Your task to perform on an android device: find photos in the google photos app Image 0: 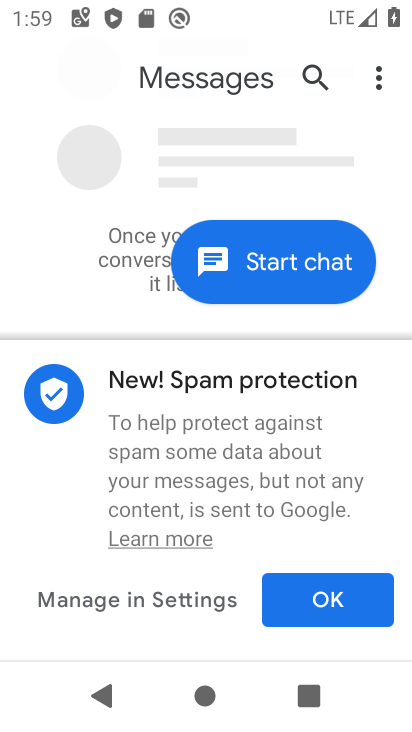
Step 0: press home button
Your task to perform on an android device: find photos in the google photos app Image 1: 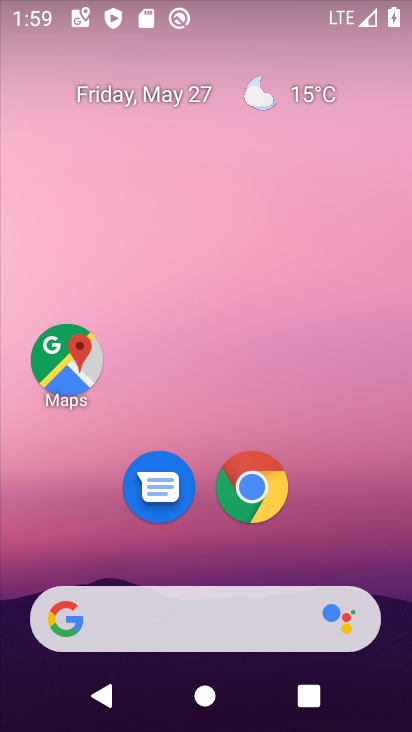
Step 1: drag from (347, 534) to (328, 171)
Your task to perform on an android device: find photos in the google photos app Image 2: 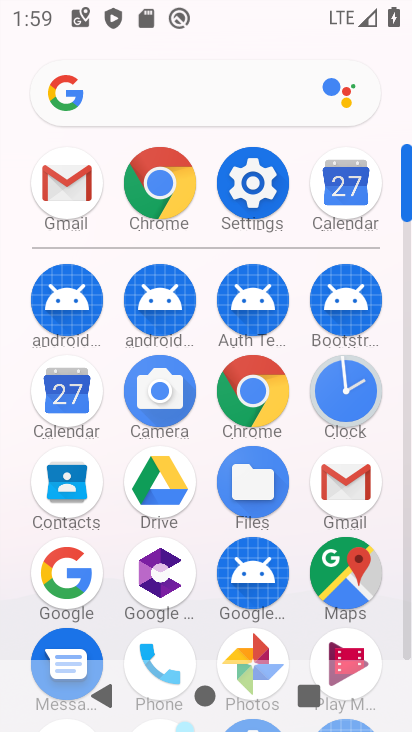
Step 2: click (255, 385)
Your task to perform on an android device: find photos in the google photos app Image 3: 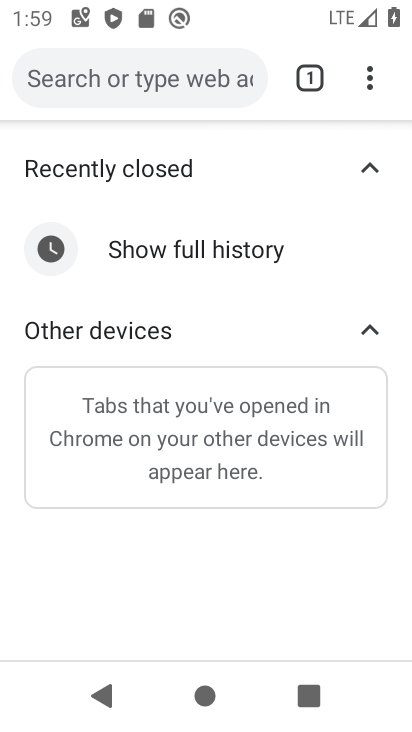
Step 3: drag from (381, 77) to (397, 177)
Your task to perform on an android device: find photos in the google photos app Image 4: 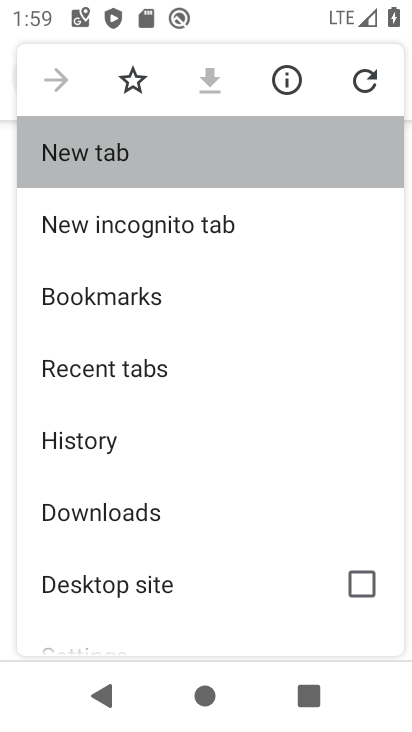
Step 4: press home button
Your task to perform on an android device: find photos in the google photos app Image 5: 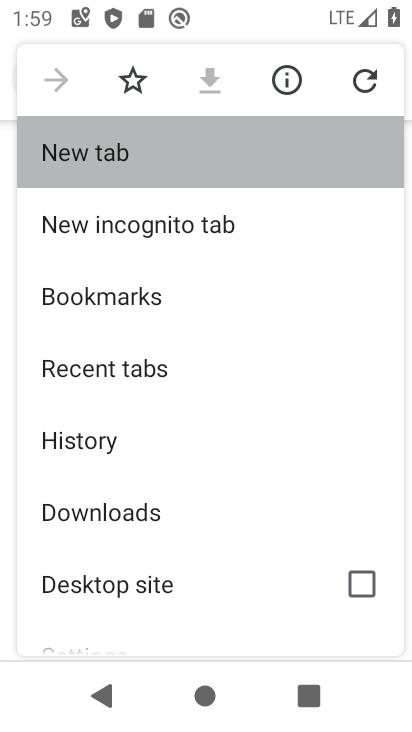
Step 5: drag from (397, 177) to (404, 335)
Your task to perform on an android device: find photos in the google photos app Image 6: 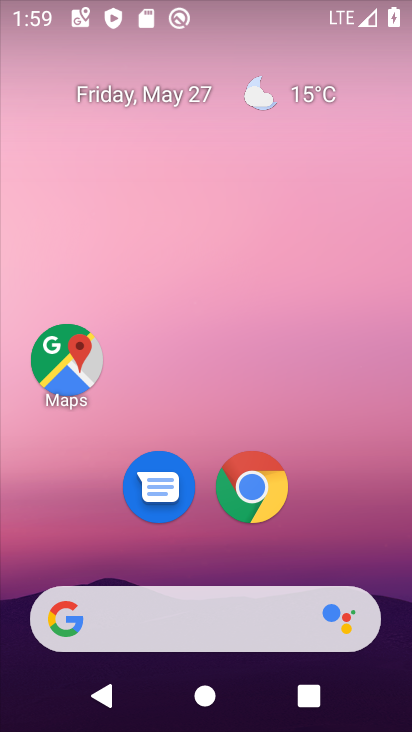
Step 6: drag from (314, 494) to (351, 129)
Your task to perform on an android device: find photos in the google photos app Image 7: 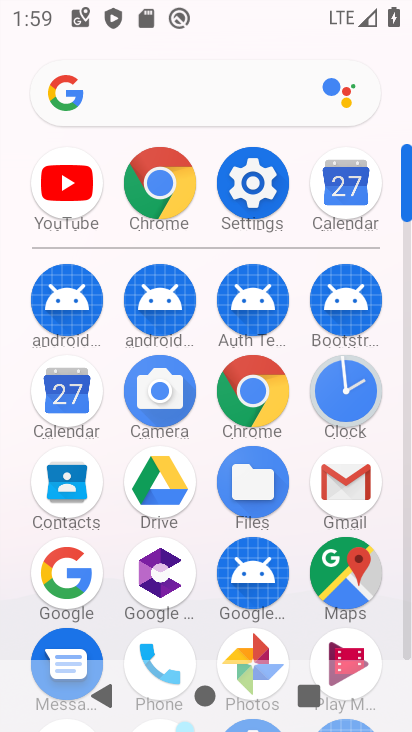
Step 7: click (240, 646)
Your task to perform on an android device: find photos in the google photos app Image 8: 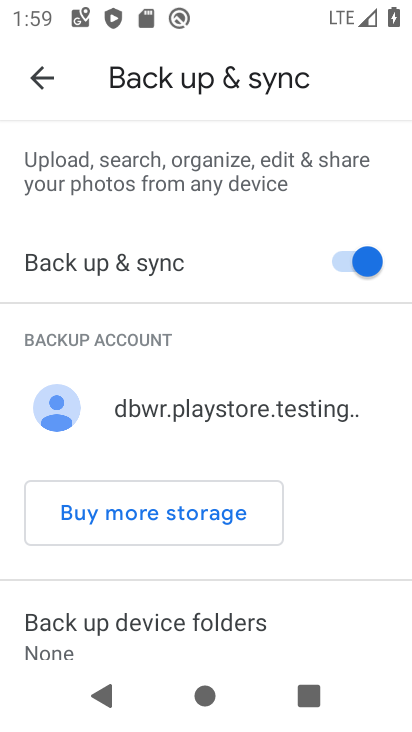
Step 8: drag from (246, 625) to (318, 185)
Your task to perform on an android device: find photos in the google photos app Image 9: 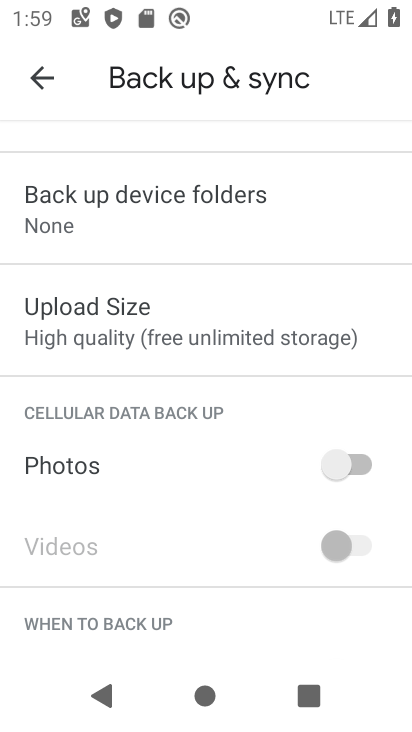
Step 9: click (33, 67)
Your task to perform on an android device: find photos in the google photos app Image 10: 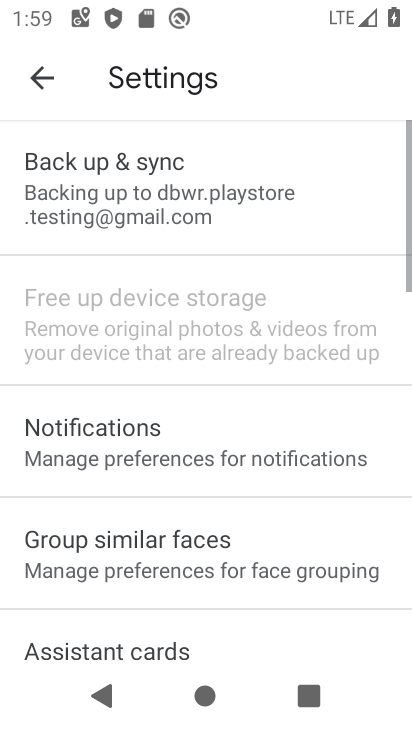
Step 10: click (33, 66)
Your task to perform on an android device: find photos in the google photos app Image 11: 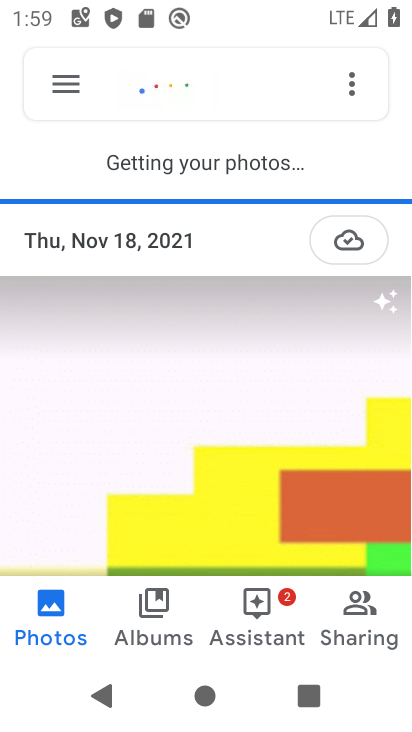
Step 11: task complete